Your task to perform on an android device: turn off location Image 0: 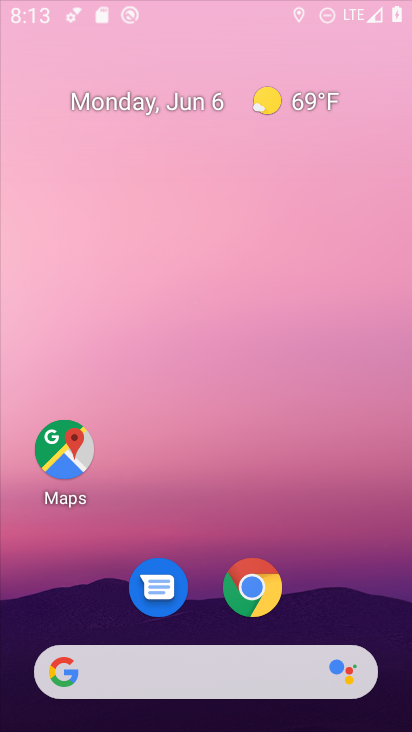
Step 0: press home button
Your task to perform on an android device: turn off location Image 1: 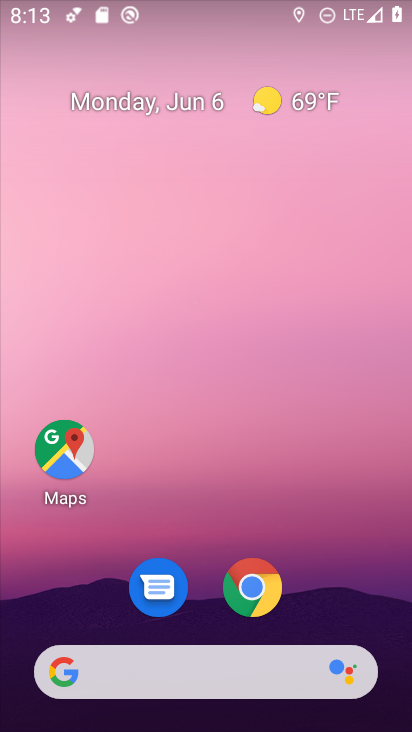
Step 1: drag from (331, 536) to (322, 150)
Your task to perform on an android device: turn off location Image 2: 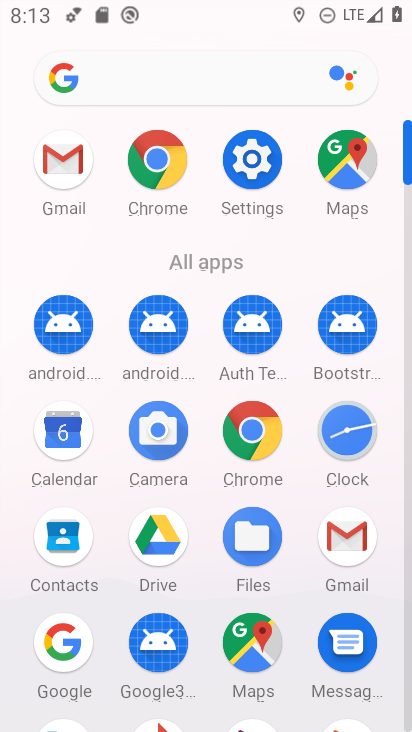
Step 2: click (251, 171)
Your task to perform on an android device: turn off location Image 3: 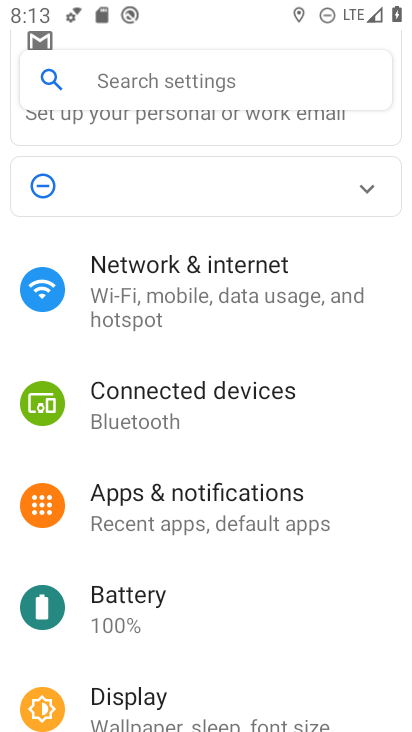
Step 3: click (235, 495)
Your task to perform on an android device: turn off location Image 4: 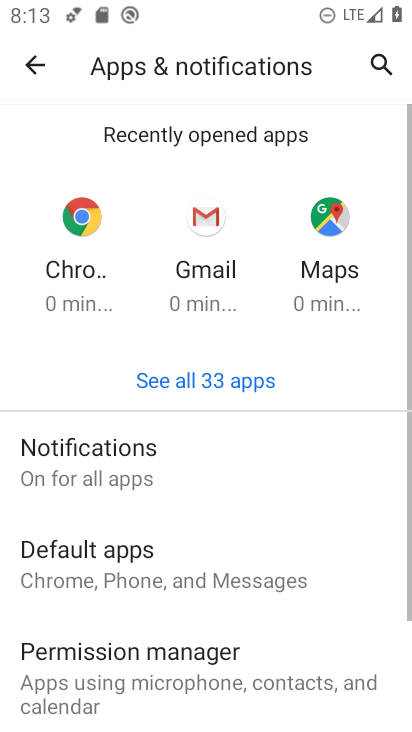
Step 4: click (123, 469)
Your task to perform on an android device: turn off location Image 5: 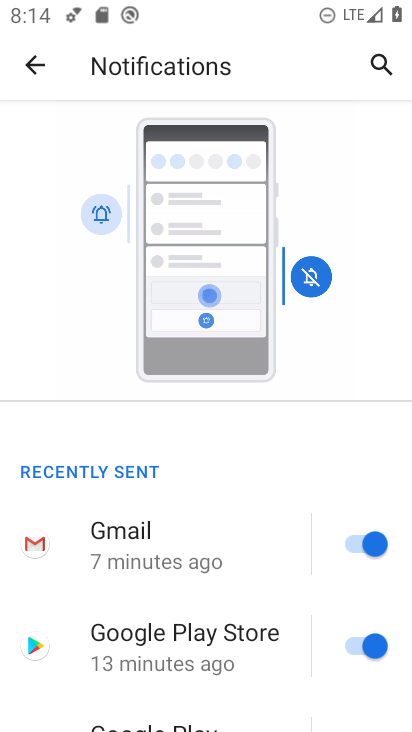
Step 5: drag from (255, 534) to (289, 240)
Your task to perform on an android device: turn off location Image 6: 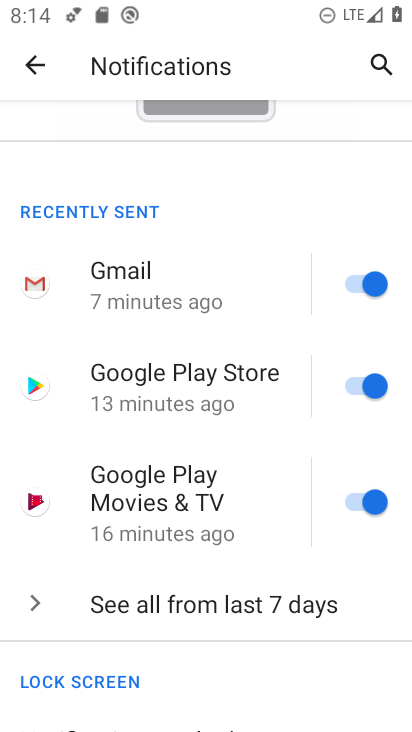
Step 6: click (36, 58)
Your task to perform on an android device: turn off location Image 7: 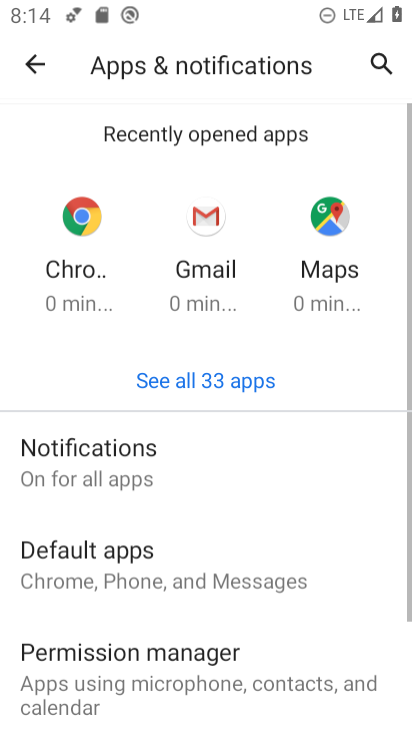
Step 7: click (42, 68)
Your task to perform on an android device: turn off location Image 8: 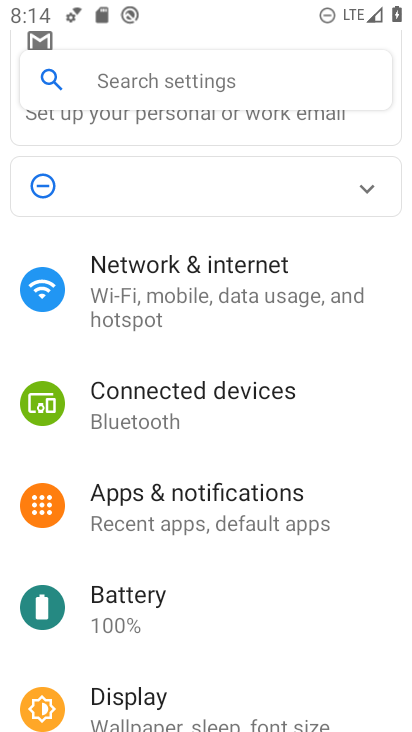
Step 8: drag from (197, 611) to (278, 123)
Your task to perform on an android device: turn off location Image 9: 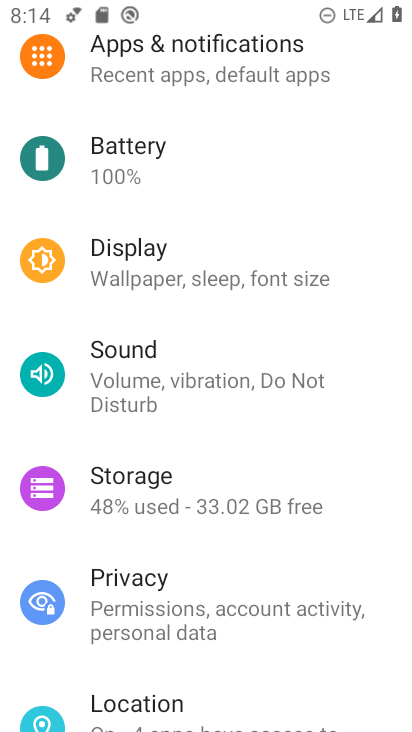
Step 9: drag from (196, 493) to (286, 235)
Your task to perform on an android device: turn off location Image 10: 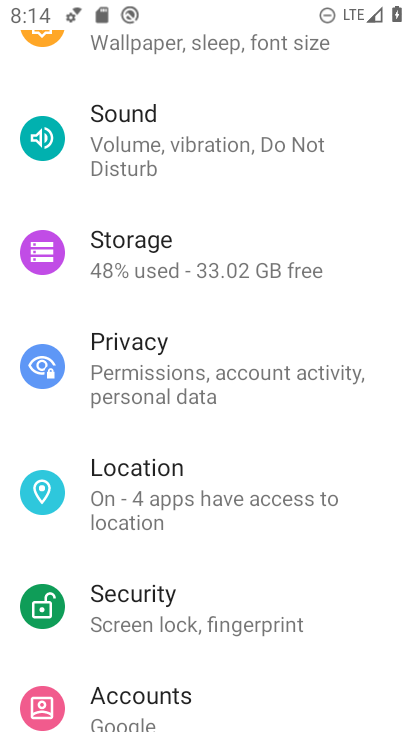
Step 10: click (151, 468)
Your task to perform on an android device: turn off location Image 11: 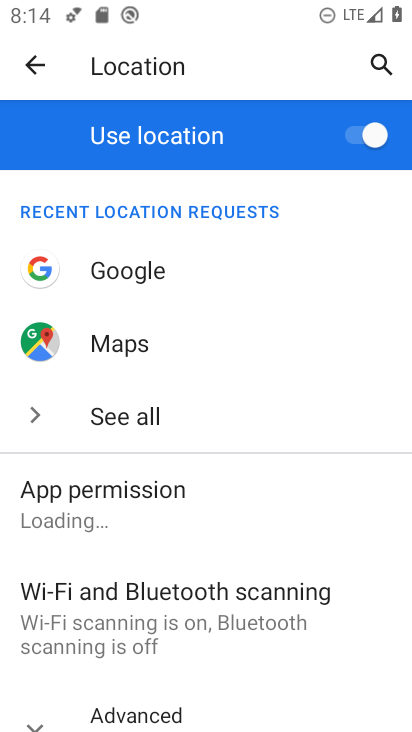
Step 11: click (369, 132)
Your task to perform on an android device: turn off location Image 12: 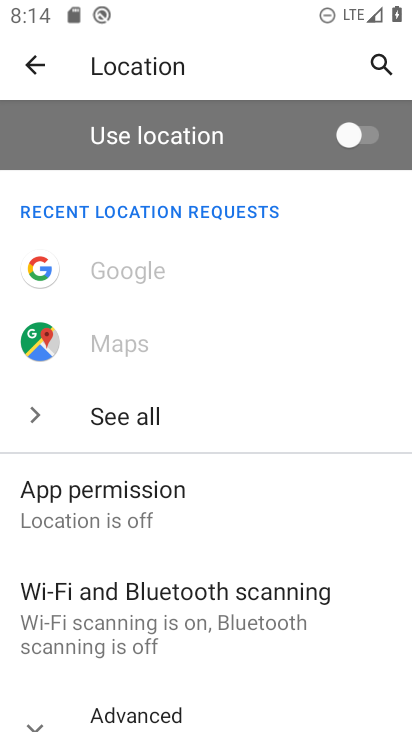
Step 12: task complete